Your task to perform on an android device: turn notification dots on Image 0: 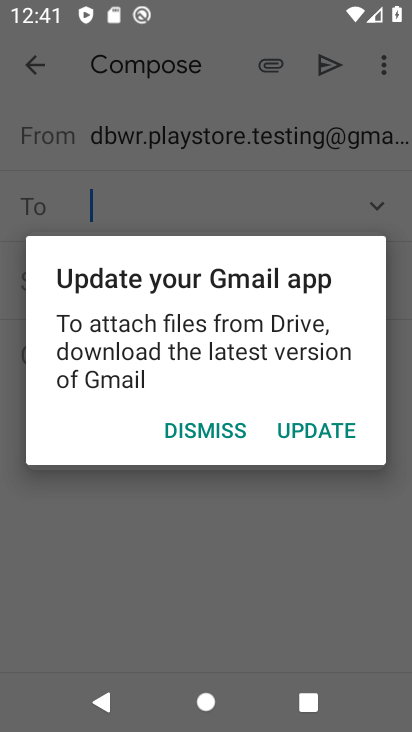
Step 0: press home button
Your task to perform on an android device: turn notification dots on Image 1: 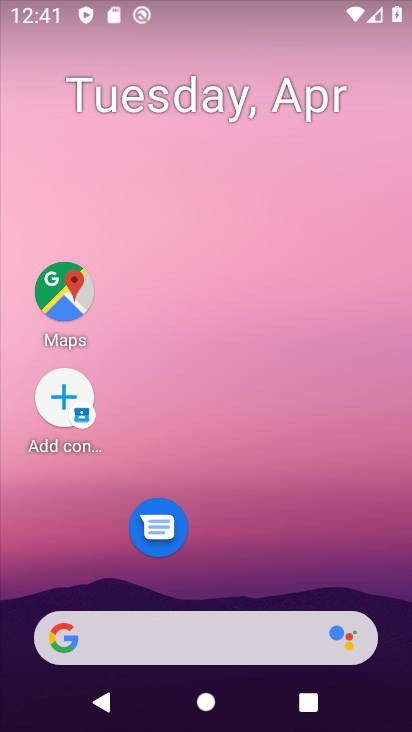
Step 1: drag from (221, 587) to (237, 23)
Your task to perform on an android device: turn notification dots on Image 2: 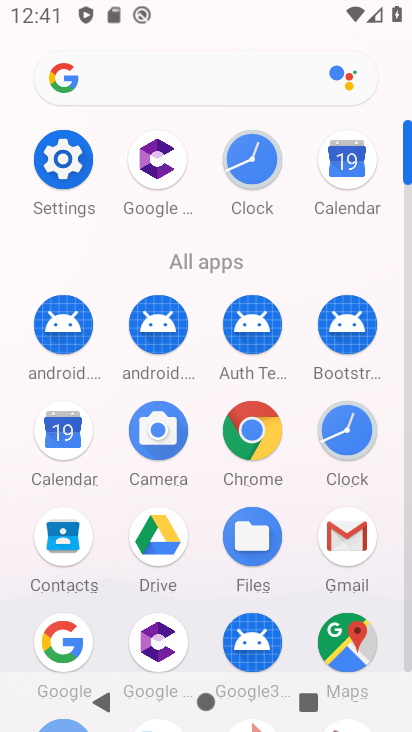
Step 2: drag from (209, 508) to (197, 276)
Your task to perform on an android device: turn notification dots on Image 3: 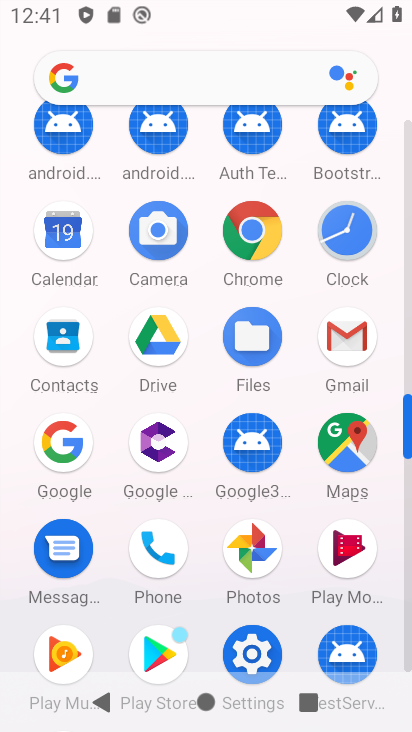
Step 3: drag from (205, 528) to (204, 398)
Your task to perform on an android device: turn notification dots on Image 4: 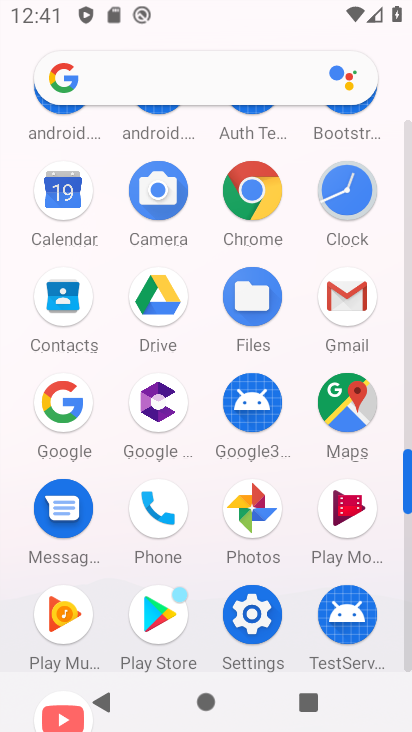
Step 4: click (256, 616)
Your task to perform on an android device: turn notification dots on Image 5: 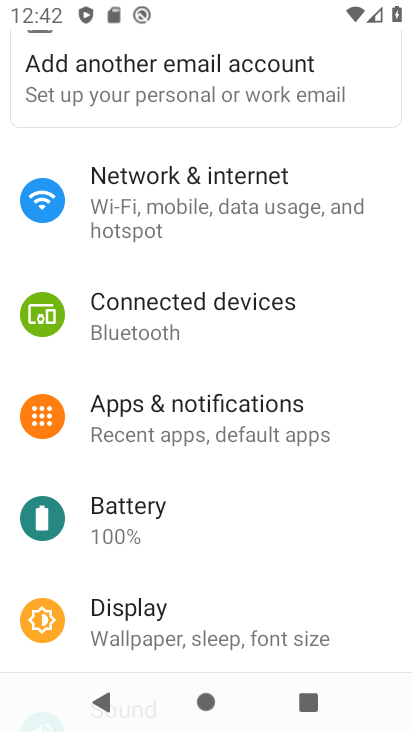
Step 5: click (220, 408)
Your task to perform on an android device: turn notification dots on Image 6: 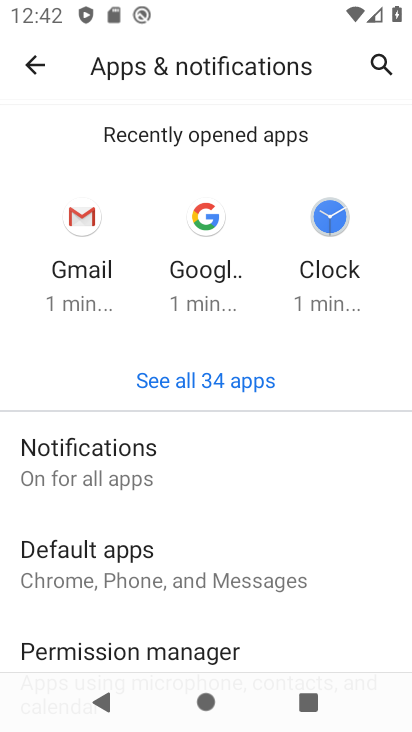
Step 6: click (98, 450)
Your task to perform on an android device: turn notification dots on Image 7: 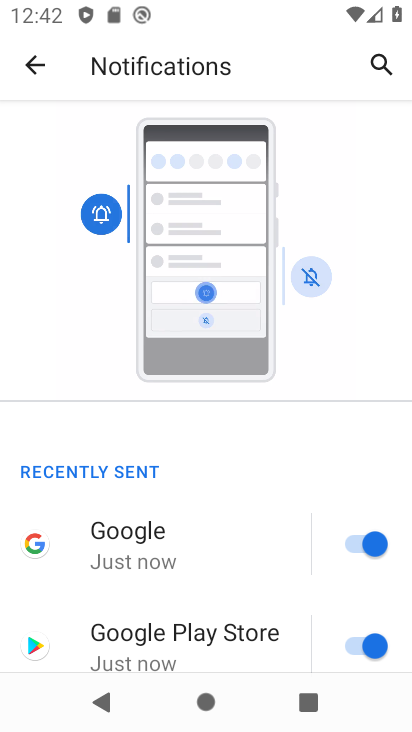
Step 7: drag from (225, 501) to (215, 258)
Your task to perform on an android device: turn notification dots on Image 8: 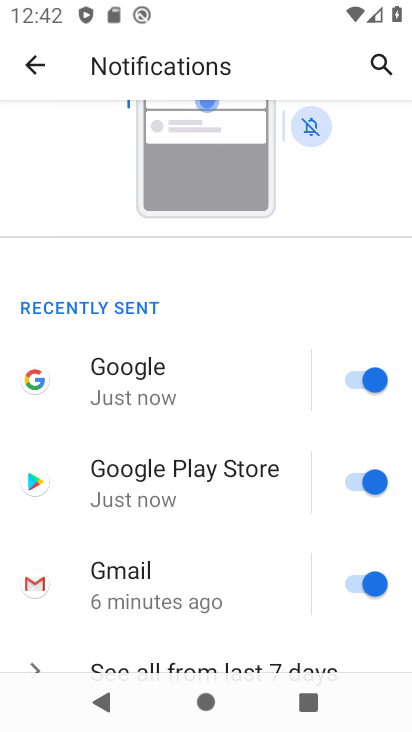
Step 8: drag from (198, 510) to (208, 313)
Your task to perform on an android device: turn notification dots on Image 9: 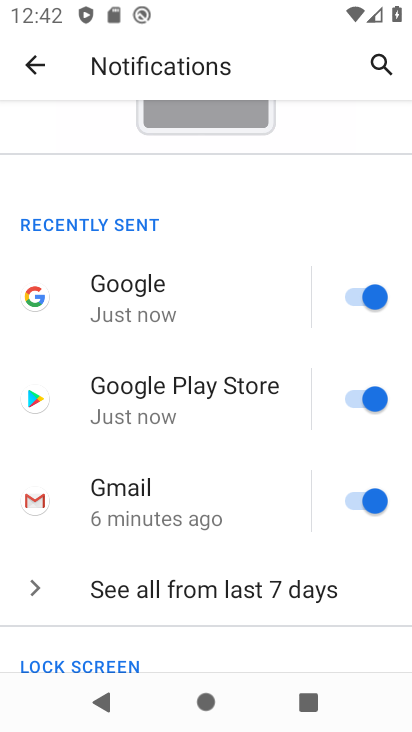
Step 9: drag from (192, 539) to (244, 339)
Your task to perform on an android device: turn notification dots on Image 10: 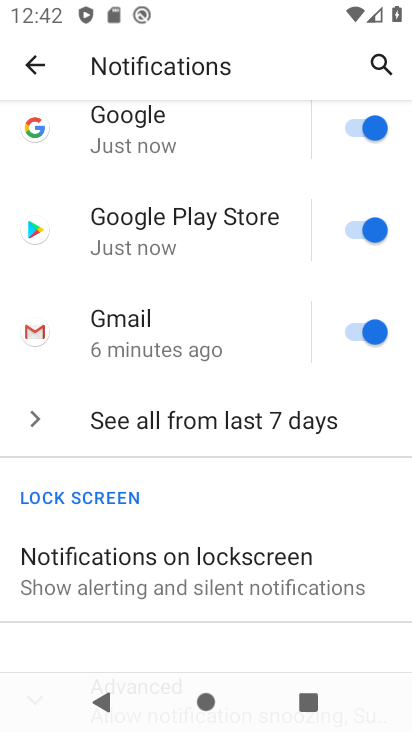
Step 10: drag from (199, 536) to (228, 349)
Your task to perform on an android device: turn notification dots on Image 11: 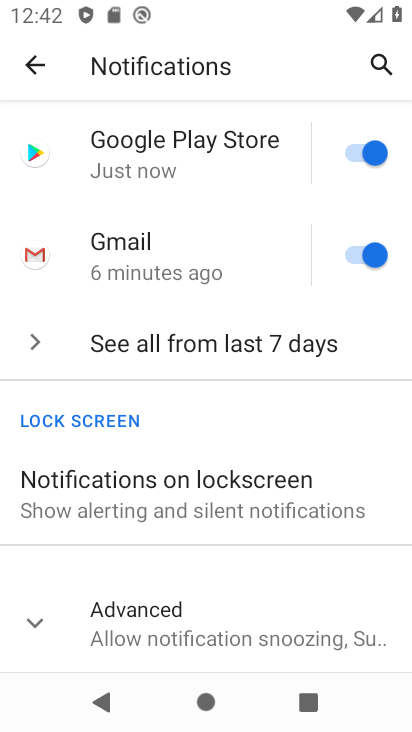
Step 11: drag from (218, 586) to (249, 380)
Your task to perform on an android device: turn notification dots on Image 12: 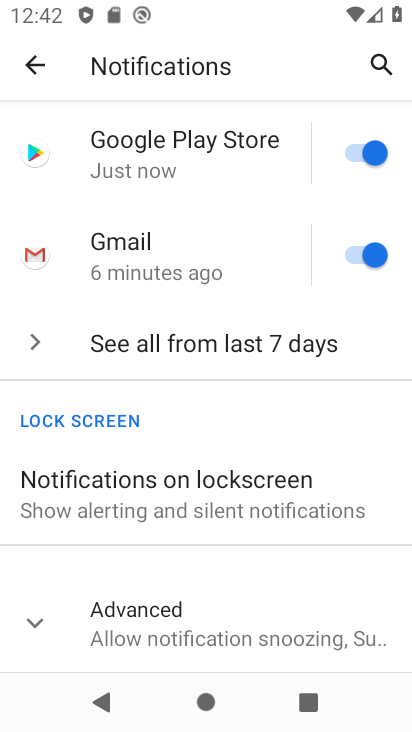
Step 12: click (144, 610)
Your task to perform on an android device: turn notification dots on Image 13: 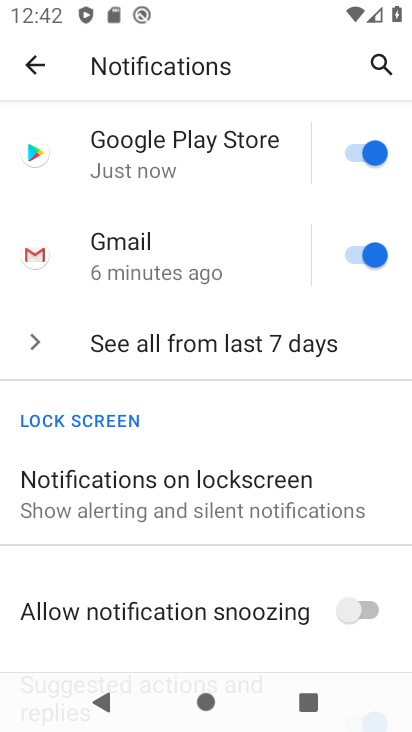
Step 13: task complete